Your task to perform on an android device: change your default location settings in chrome Image 0: 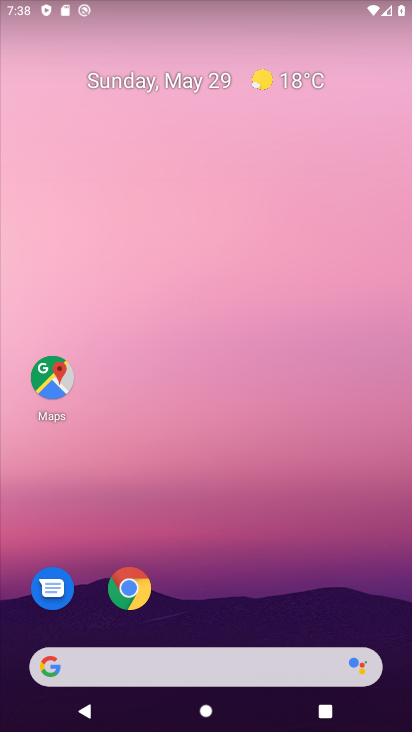
Step 0: click (126, 586)
Your task to perform on an android device: change your default location settings in chrome Image 1: 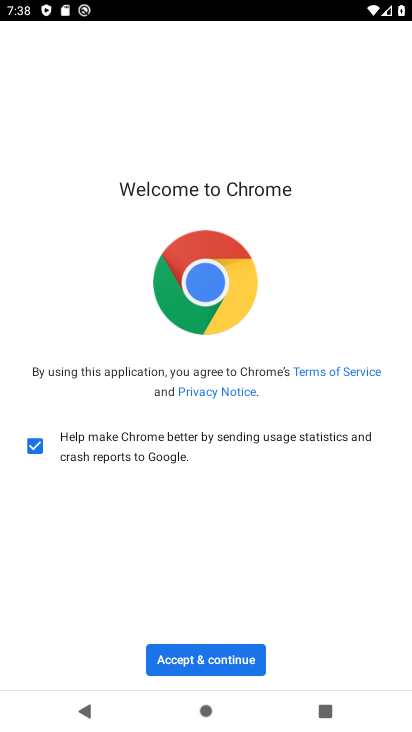
Step 1: click (228, 666)
Your task to perform on an android device: change your default location settings in chrome Image 2: 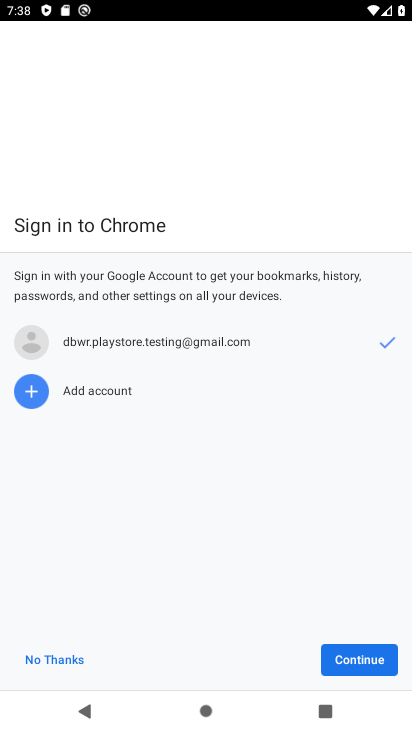
Step 2: click (375, 657)
Your task to perform on an android device: change your default location settings in chrome Image 3: 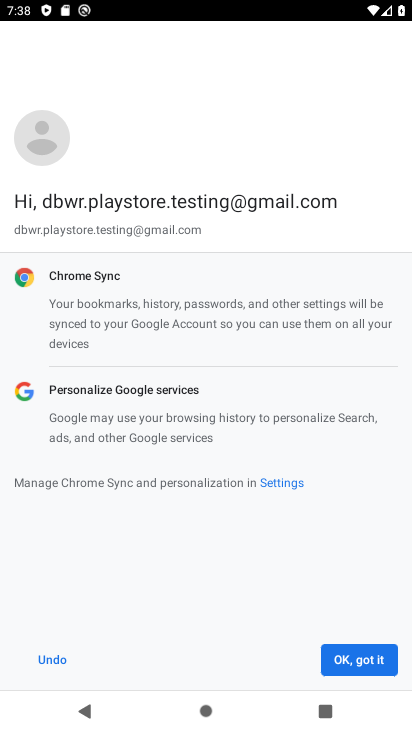
Step 3: click (375, 657)
Your task to perform on an android device: change your default location settings in chrome Image 4: 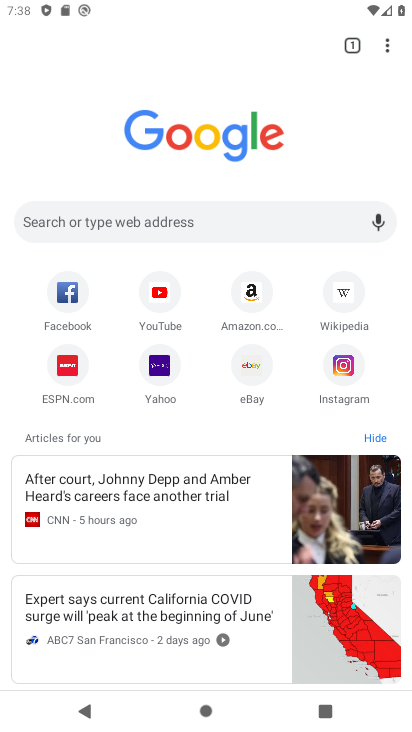
Step 4: click (382, 39)
Your task to perform on an android device: change your default location settings in chrome Image 5: 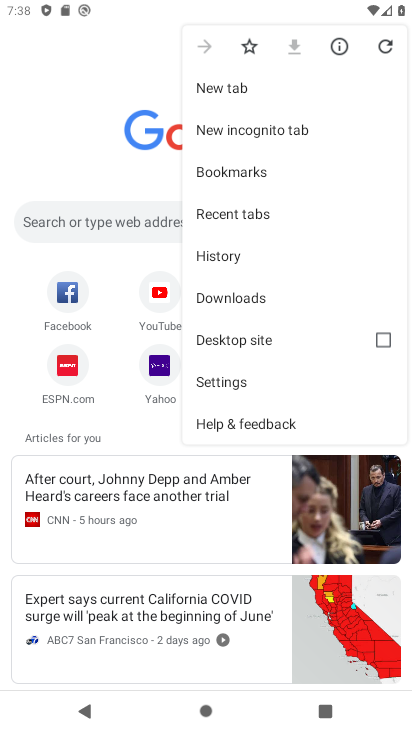
Step 5: click (229, 377)
Your task to perform on an android device: change your default location settings in chrome Image 6: 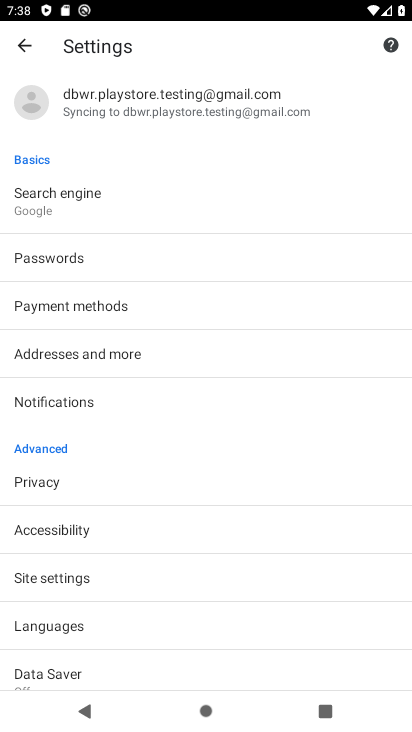
Step 6: click (84, 585)
Your task to perform on an android device: change your default location settings in chrome Image 7: 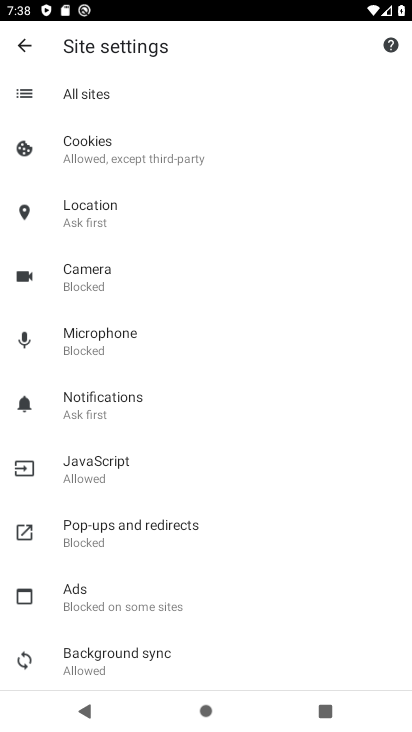
Step 7: click (114, 218)
Your task to perform on an android device: change your default location settings in chrome Image 8: 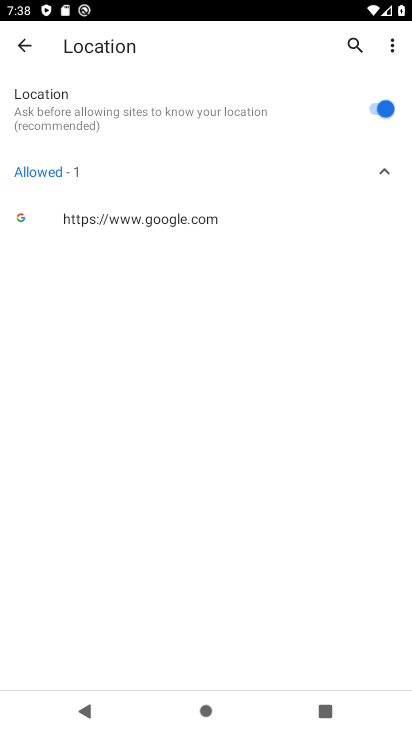
Step 8: task complete